Your task to perform on an android device: remove spam from my inbox in the gmail app Image 0: 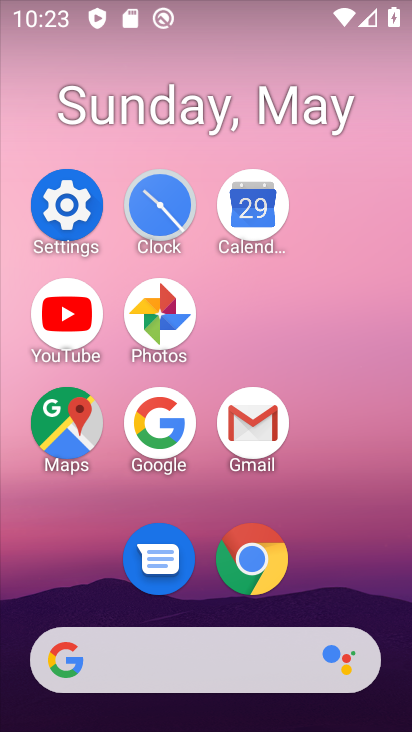
Step 0: click (234, 424)
Your task to perform on an android device: remove spam from my inbox in the gmail app Image 1: 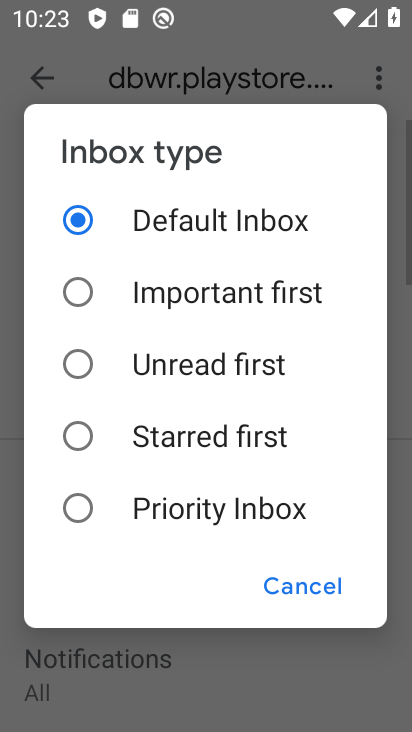
Step 1: click (310, 579)
Your task to perform on an android device: remove spam from my inbox in the gmail app Image 2: 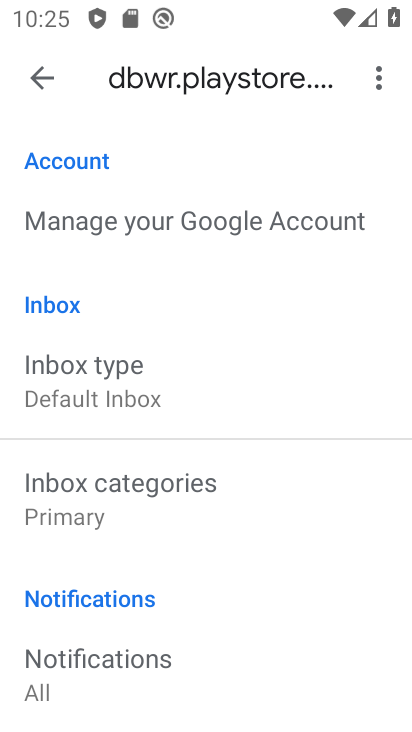
Step 2: press home button
Your task to perform on an android device: remove spam from my inbox in the gmail app Image 3: 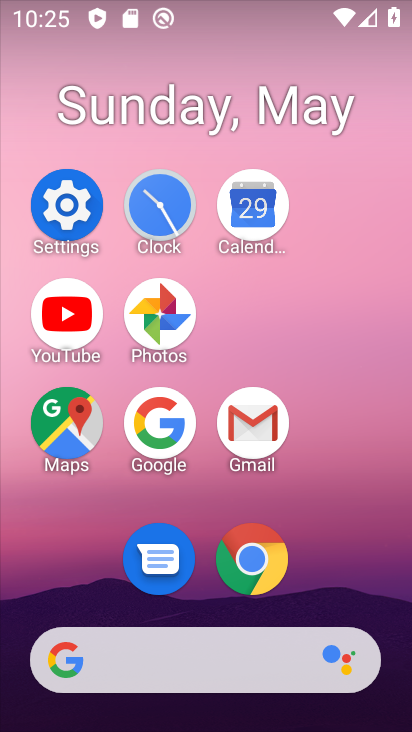
Step 3: click (262, 415)
Your task to perform on an android device: remove spam from my inbox in the gmail app Image 4: 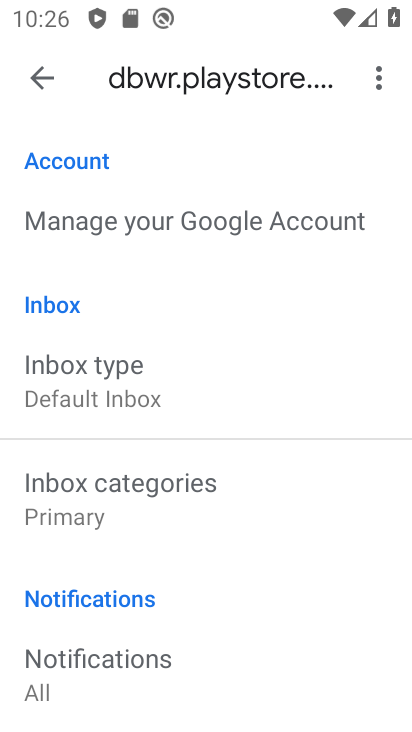
Step 4: drag from (308, 608) to (276, 166)
Your task to perform on an android device: remove spam from my inbox in the gmail app Image 5: 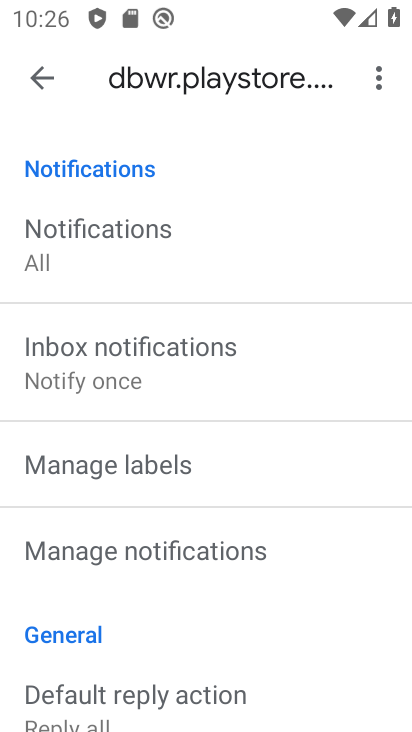
Step 5: drag from (254, 670) to (253, 244)
Your task to perform on an android device: remove spam from my inbox in the gmail app Image 6: 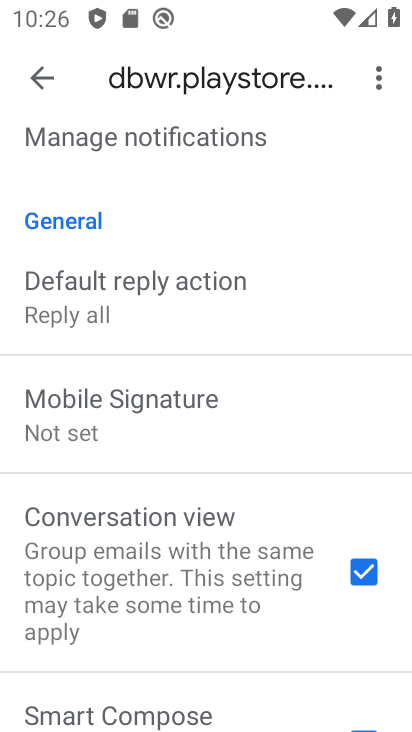
Step 6: drag from (223, 614) to (257, 173)
Your task to perform on an android device: remove spam from my inbox in the gmail app Image 7: 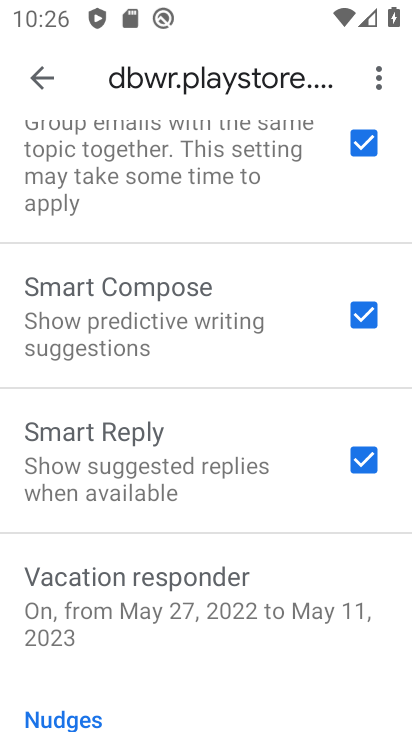
Step 7: drag from (211, 662) to (165, 172)
Your task to perform on an android device: remove spam from my inbox in the gmail app Image 8: 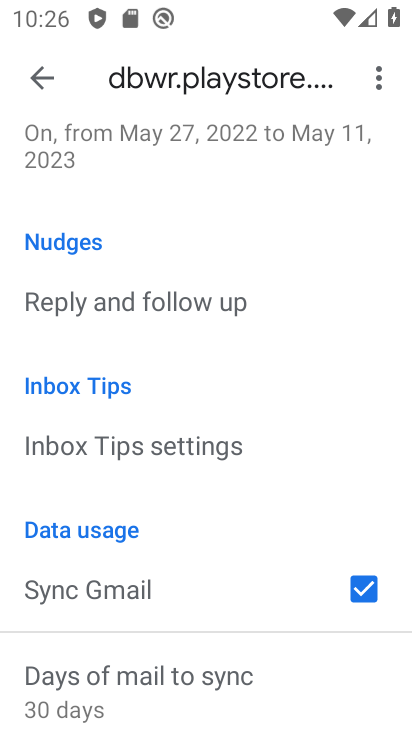
Step 8: drag from (130, 626) to (111, 177)
Your task to perform on an android device: remove spam from my inbox in the gmail app Image 9: 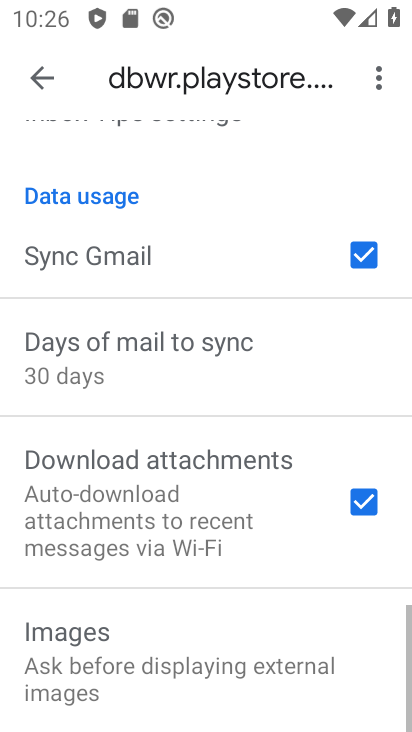
Step 9: click (33, 71)
Your task to perform on an android device: remove spam from my inbox in the gmail app Image 10: 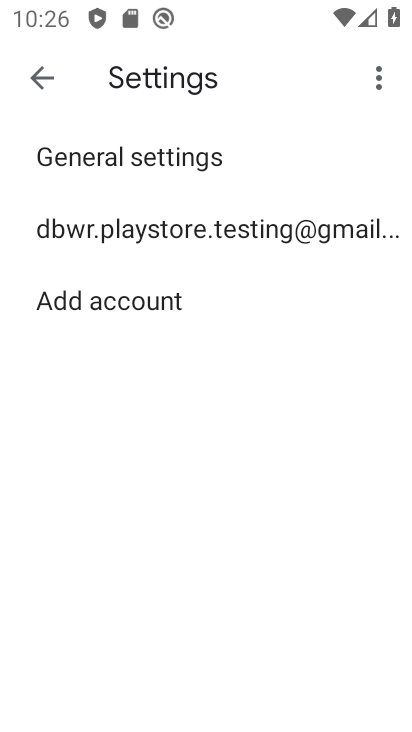
Step 10: click (38, 76)
Your task to perform on an android device: remove spam from my inbox in the gmail app Image 11: 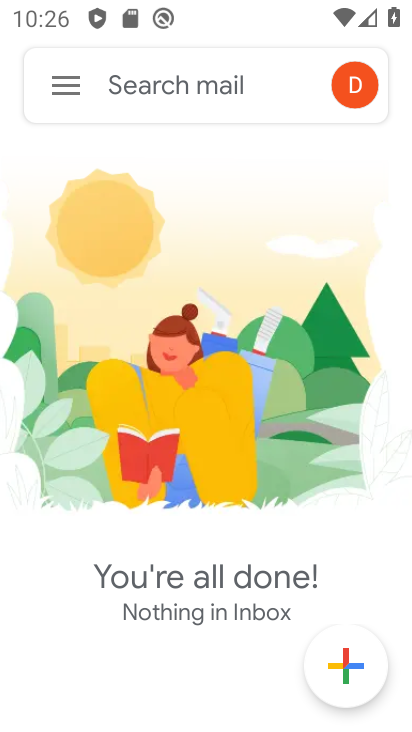
Step 11: click (69, 102)
Your task to perform on an android device: remove spam from my inbox in the gmail app Image 12: 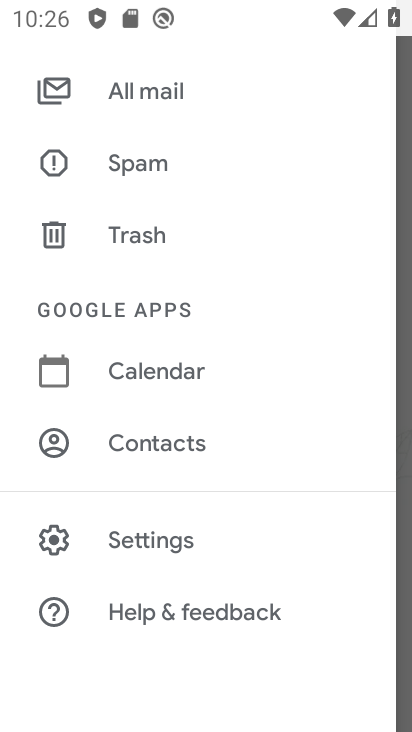
Step 12: click (187, 166)
Your task to perform on an android device: remove spam from my inbox in the gmail app Image 13: 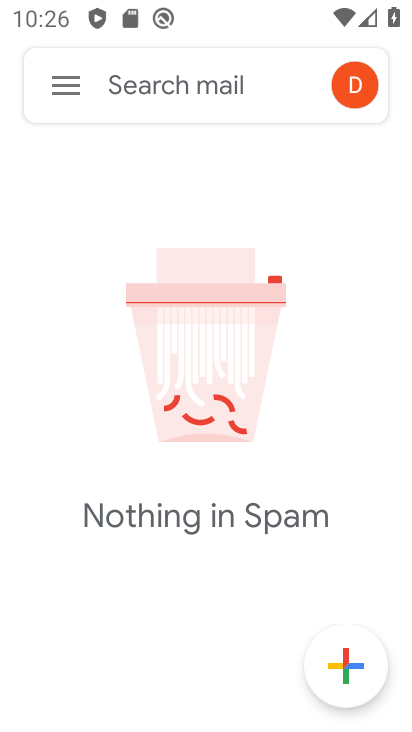
Step 13: task complete